Your task to perform on an android device: turn off data saver in the chrome app Image 0: 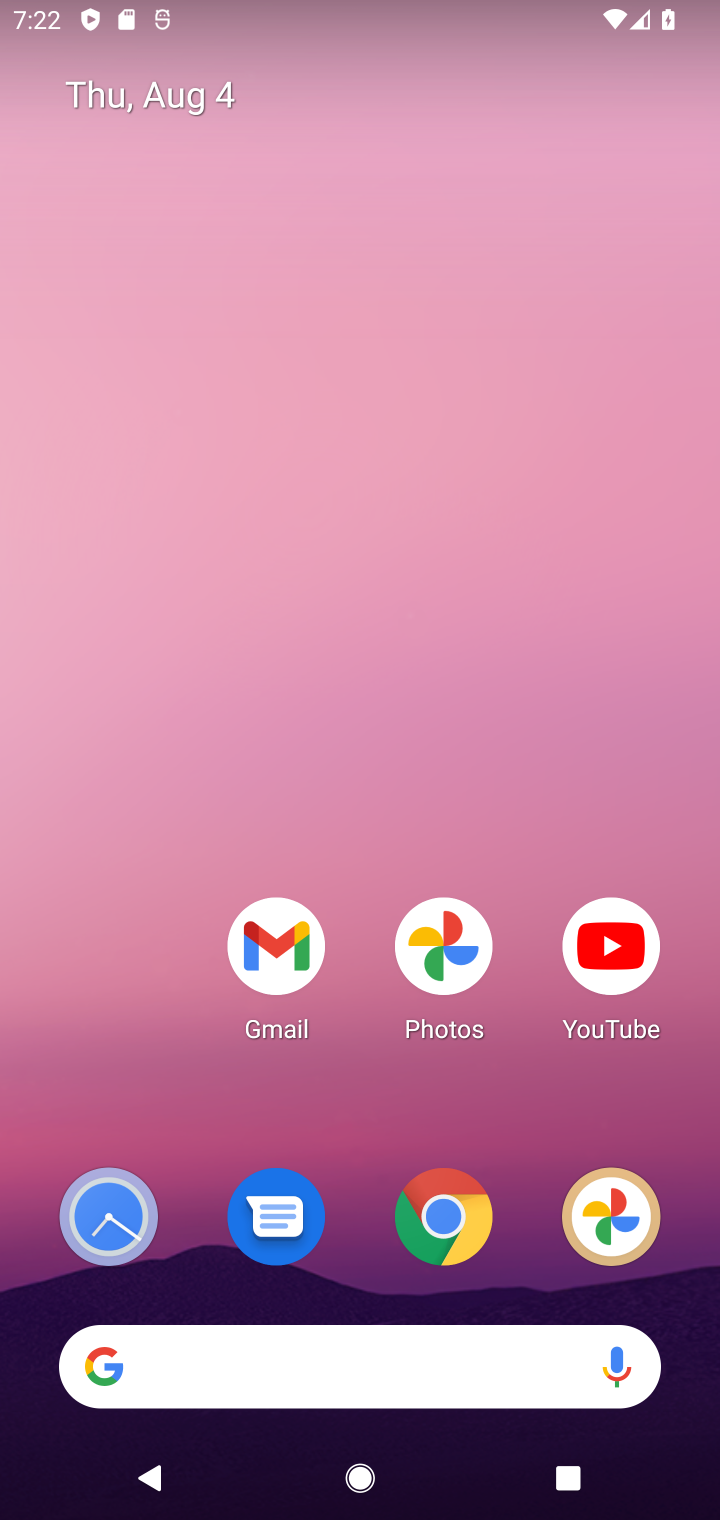
Step 0: click (455, 1201)
Your task to perform on an android device: turn off data saver in the chrome app Image 1: 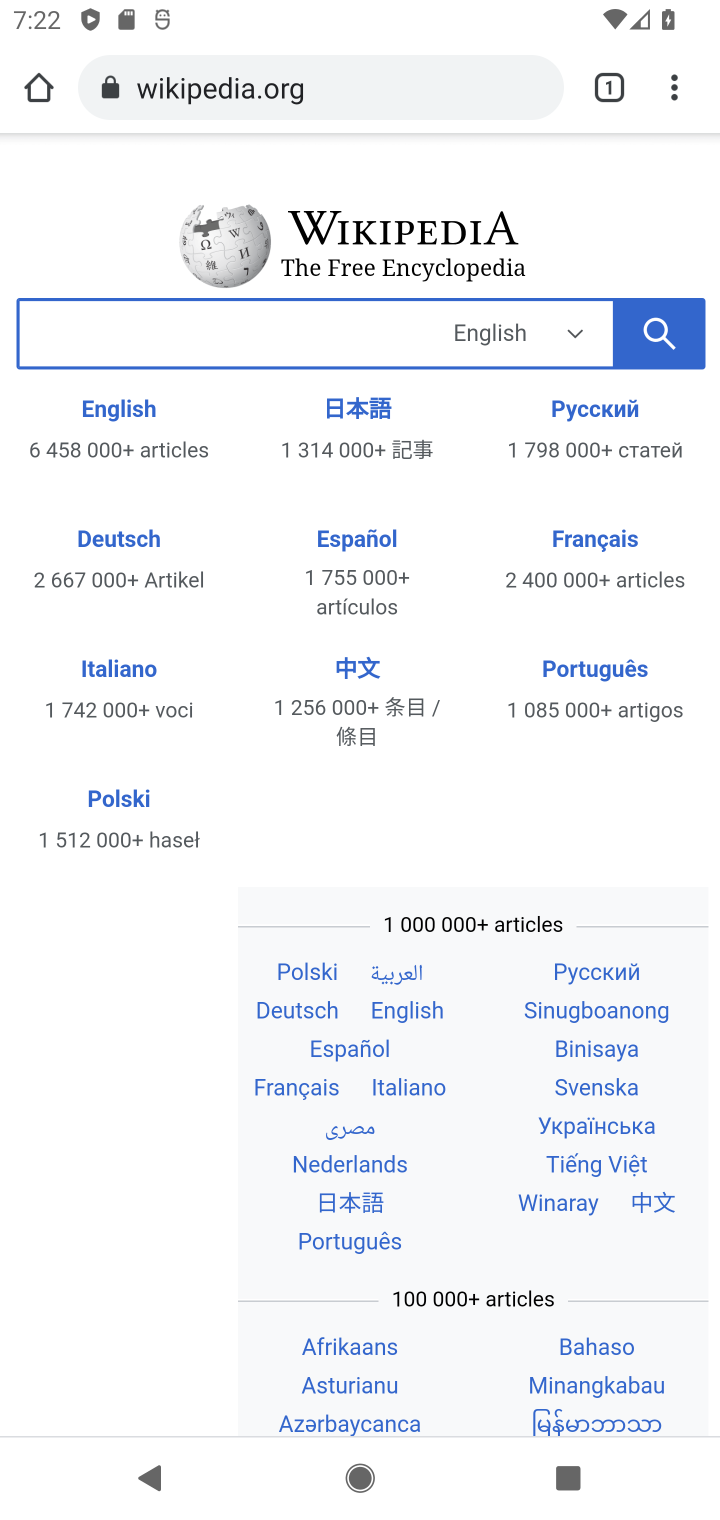
Step 1: click (672, 100)
Your task to perform on an android device: turn off data saver in the chrome app Image 2: 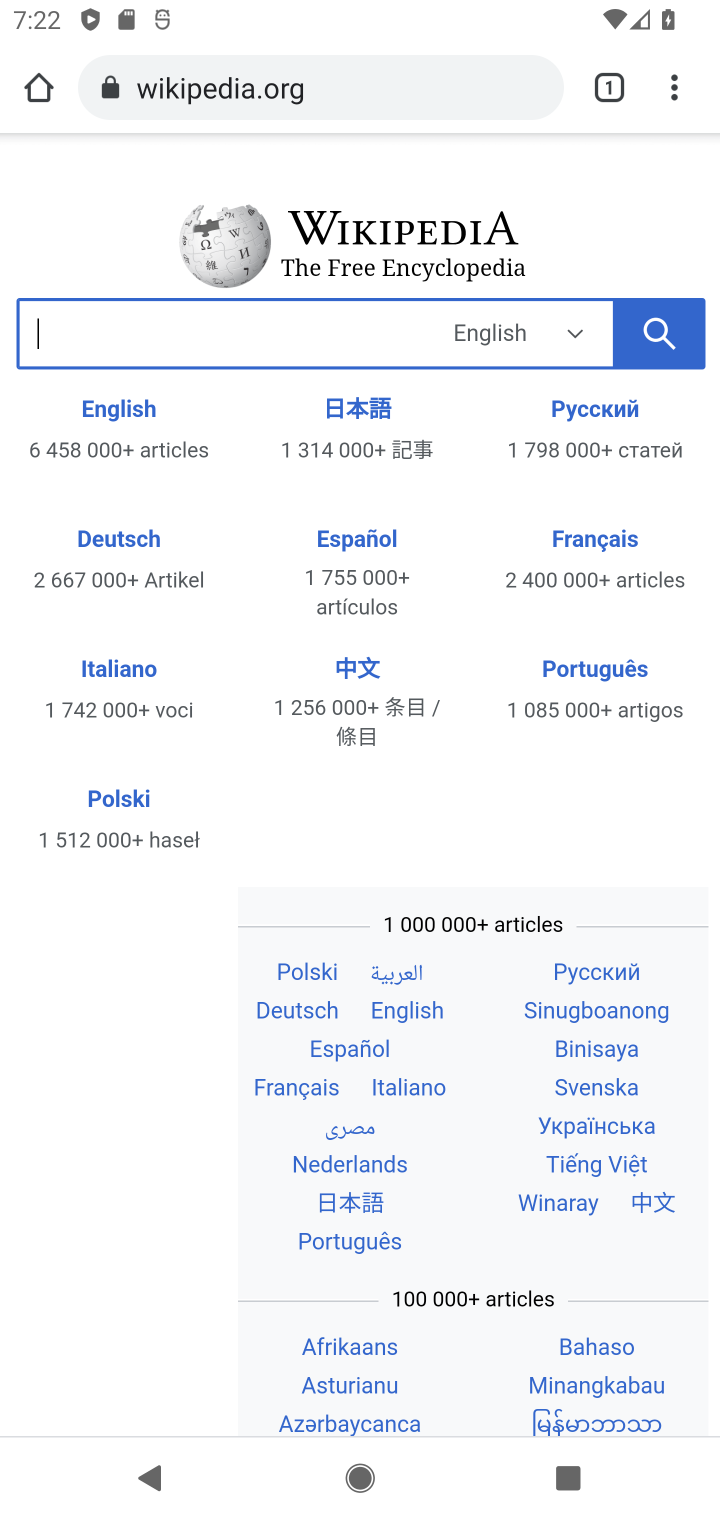
Step 2: click (674, 90)
Your task to perform on an android device: turn off data saver in the chrome app Image 3: 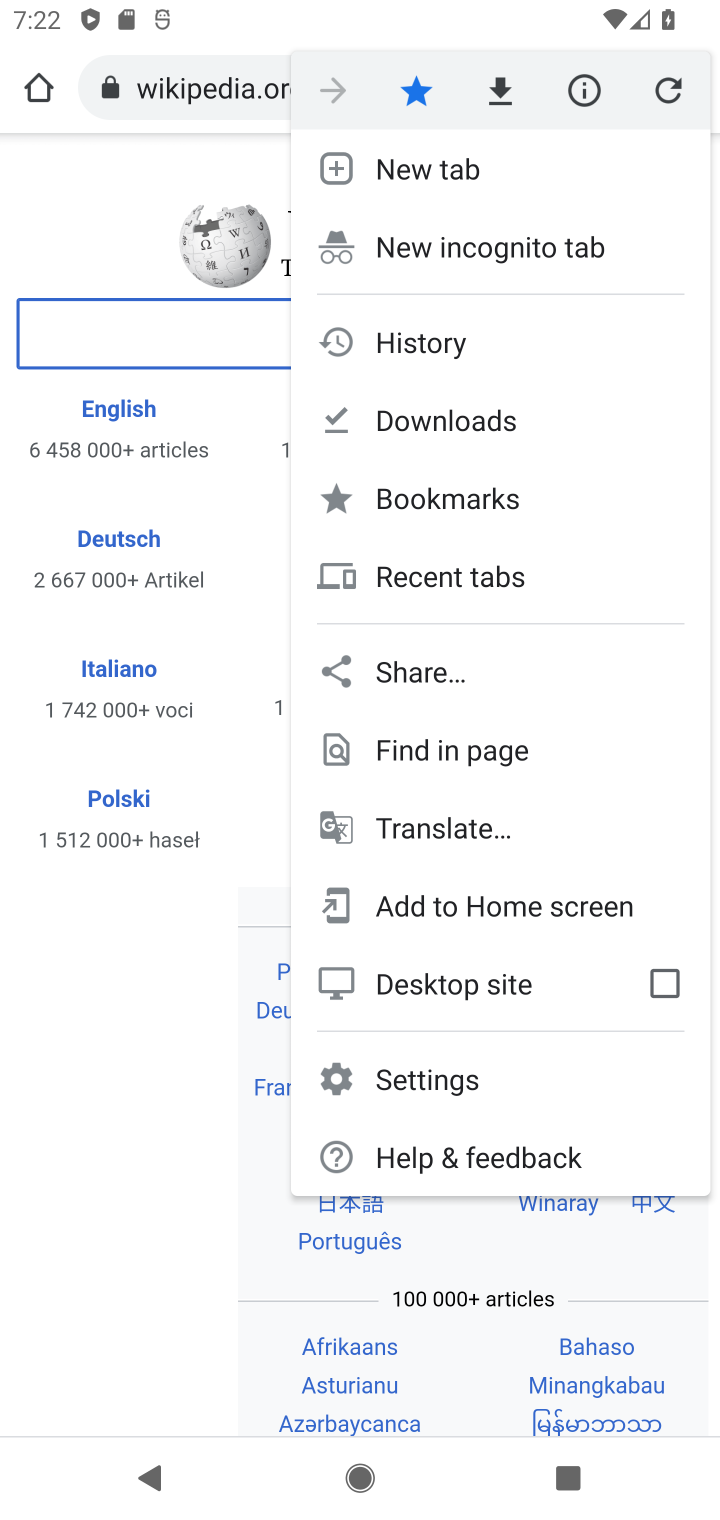
Step 3: click (462, 1064)
Your task to perform on an android device: turn off data saver in the chrome app Image 4: 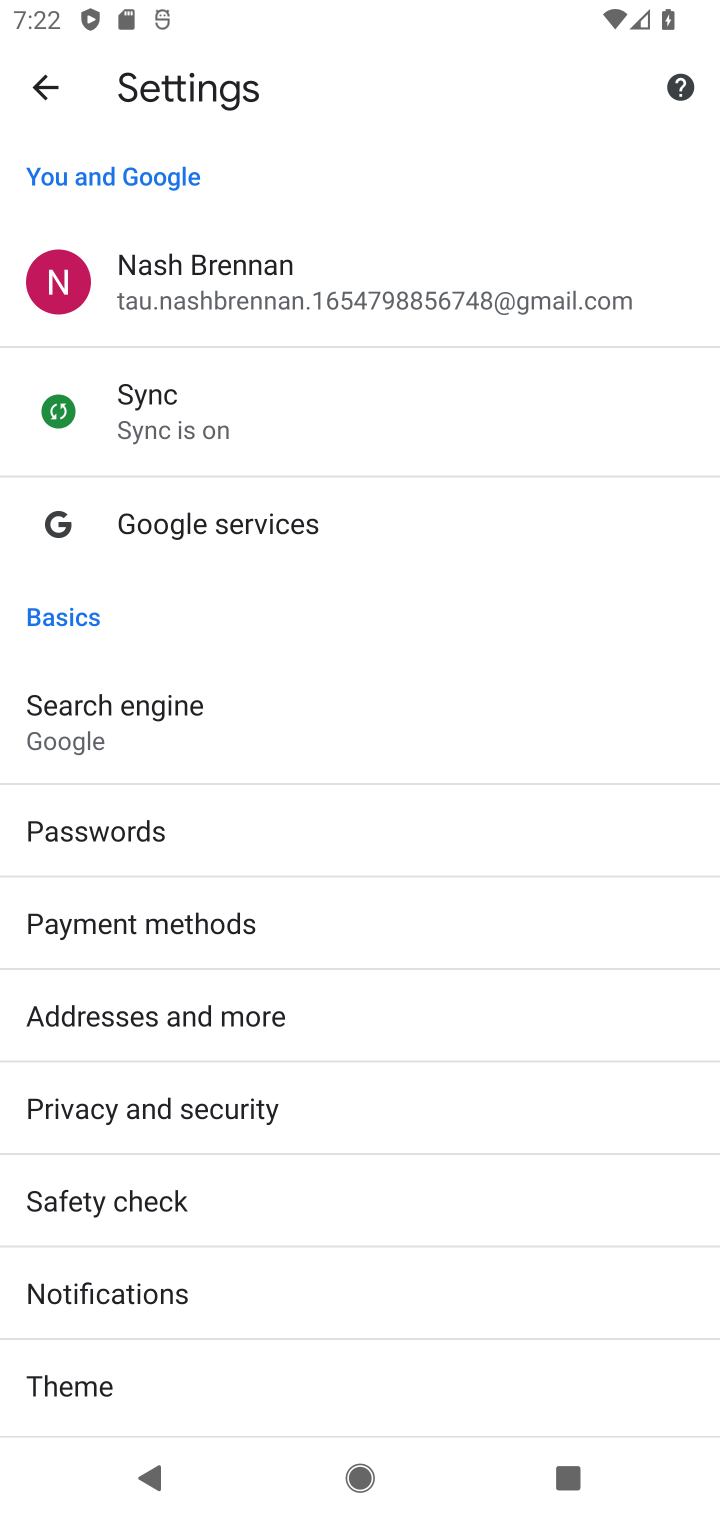
Step 4: drag from (411, 1202) to (536, 194)
Your task to perform on an android device: turn off data saver in the chrome app Image 5: 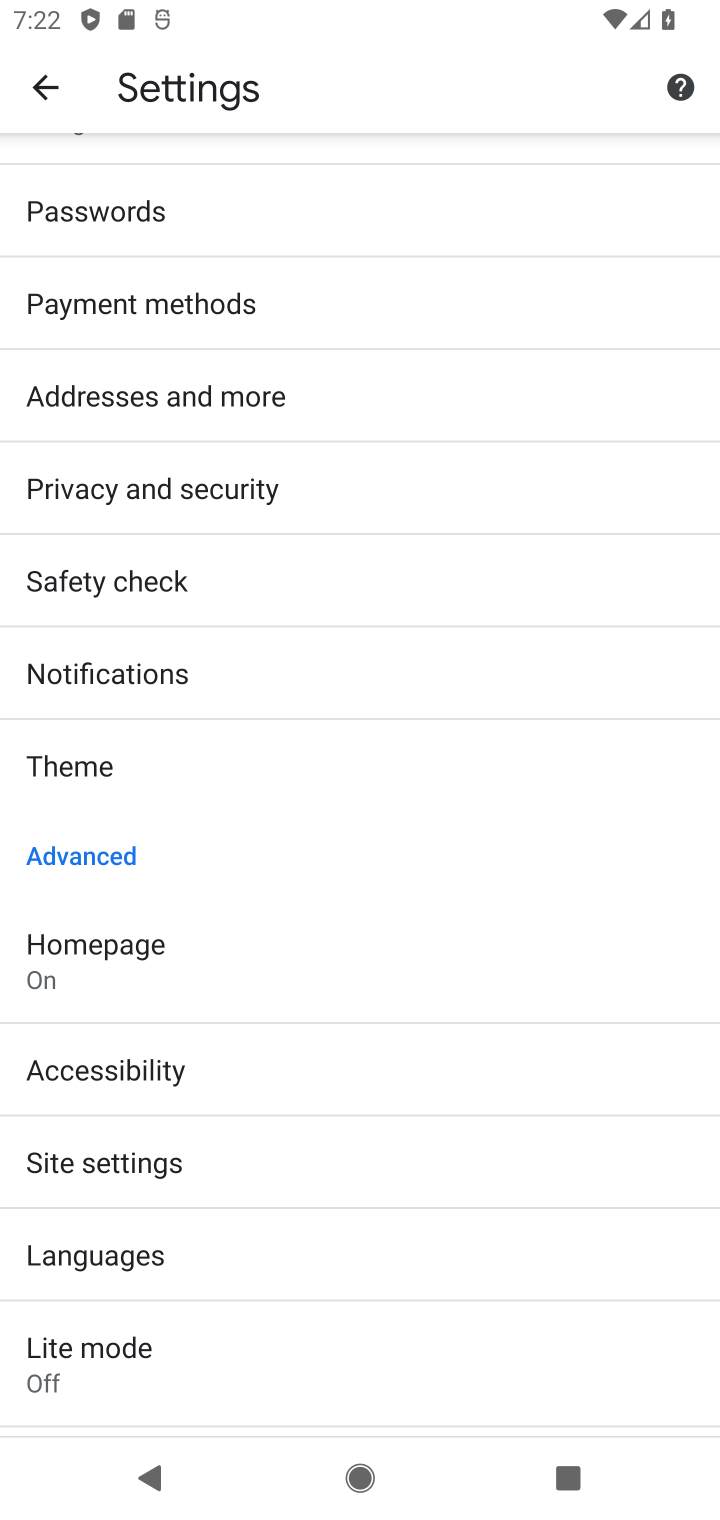
Step 5: click (254, 1337)
Your task to perform on an android device: turn off data saver in the chrome app Image 6: 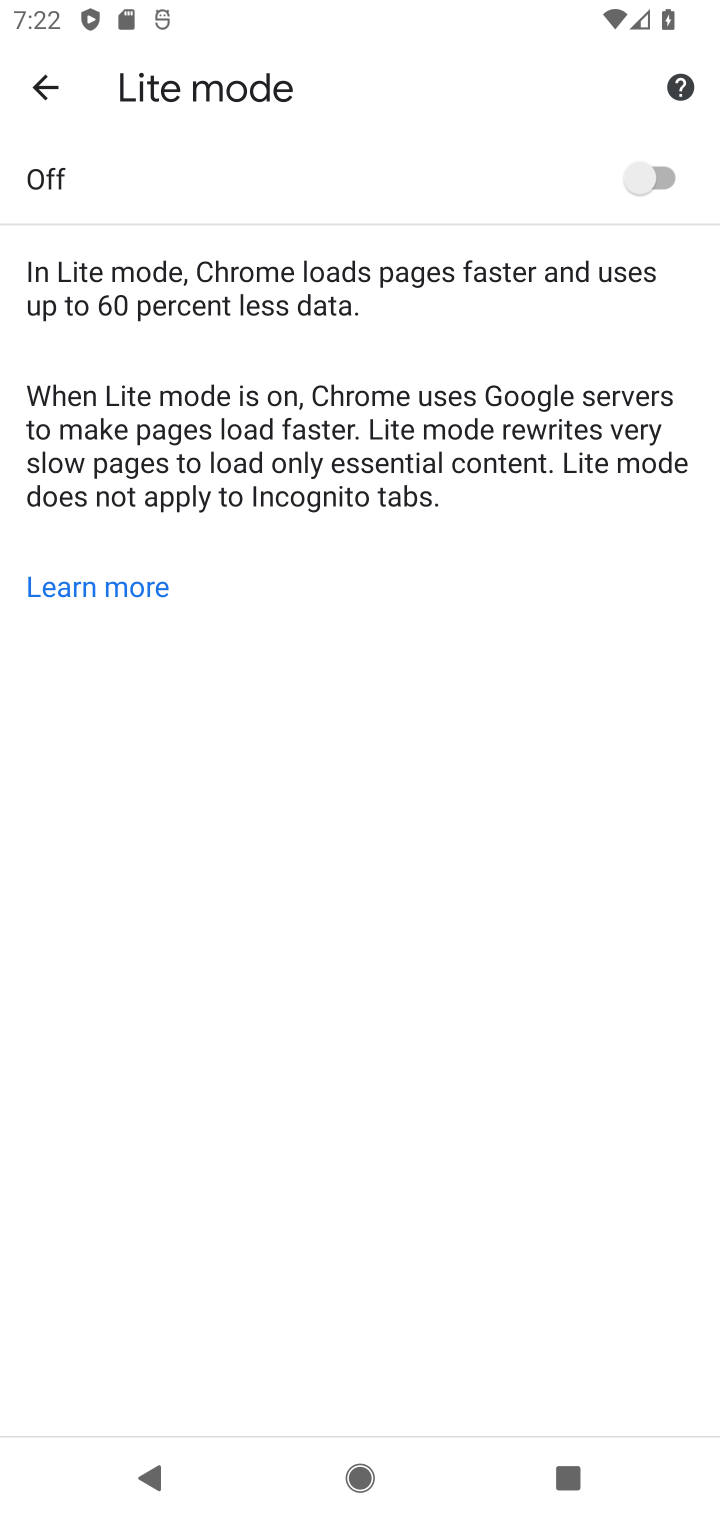
Step 6: task complete